Your task to perform on an android device: Go to Yahoo.com Image 0: 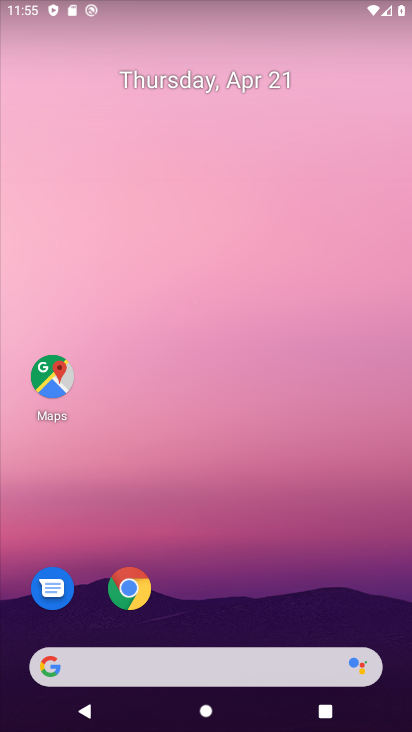
Step 0: drag from (286, 521) to (309, 78)
Your task to perform on an android device: Go to Yahoo.com Image 1: 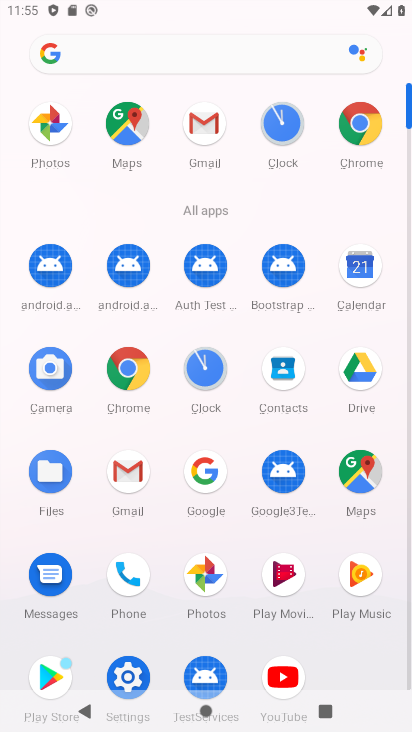
Step 1: click (127, 370)
Your task to perform on an android device: Go to Yahoo.com Image 2: 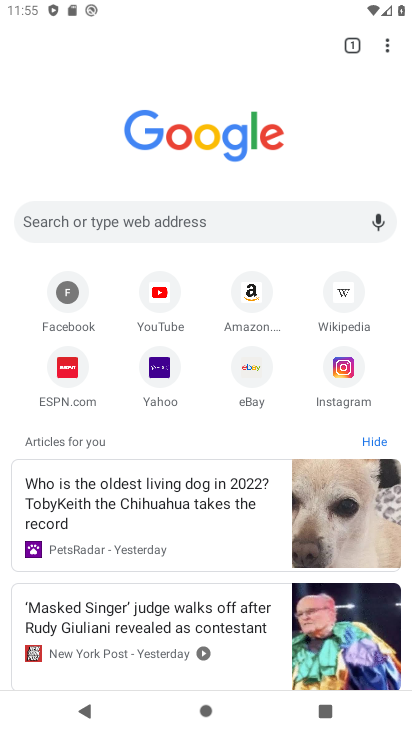
Step 2: click (203, 213)
Your task to perform on an android device: Go to Yahoo.com Image 3: 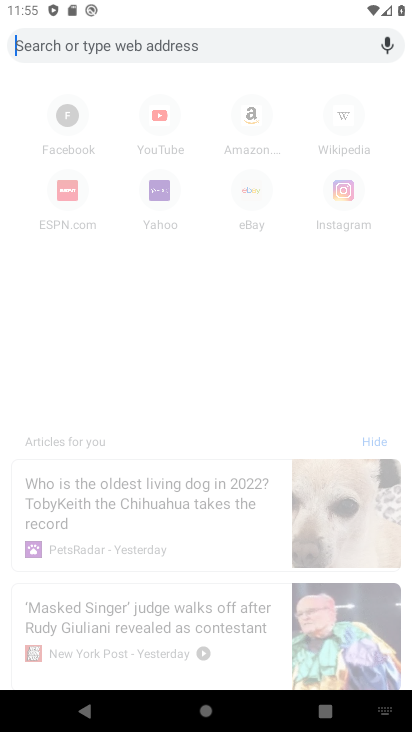
Step 3: type " Yahoo.com"
Your task to perform on an android device: Go to Yahoo.com Image 4: 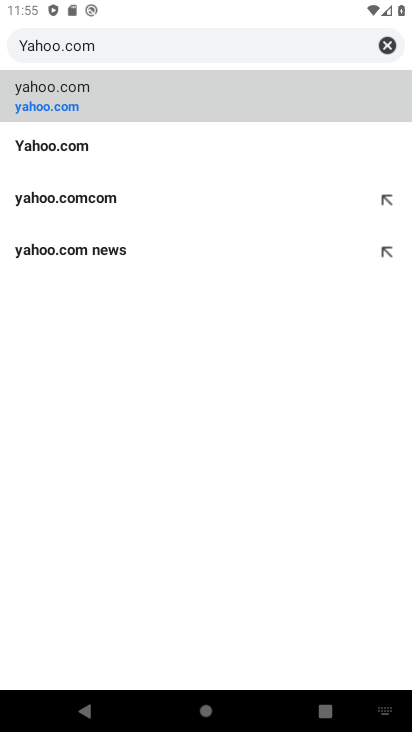
Step 4: click (72, 101)
Your task to perform on an android device: Go to Yahoo.com Image 5: 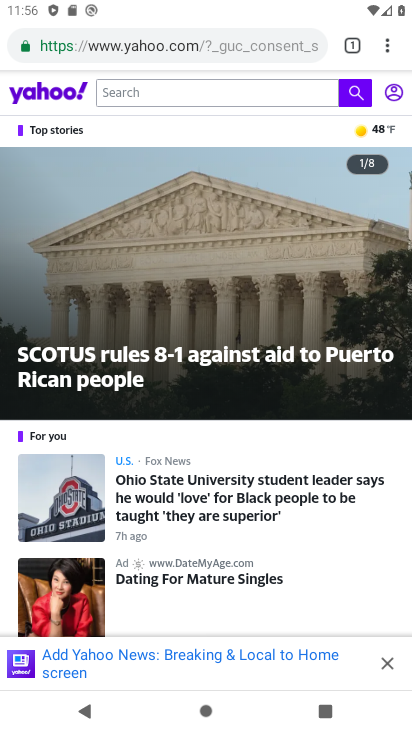
Step 5: task complete